Your task to perform on an android device: Set the phone to "Do not disturb". Image 0: 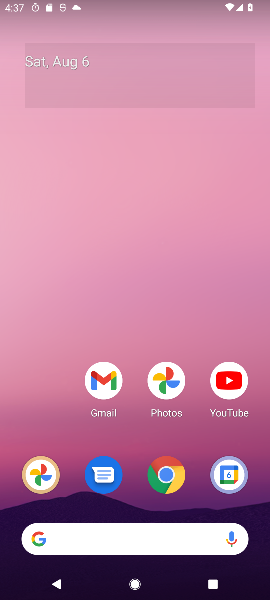
Step 0: drag from (44, 576) to (148, 41)
Your task to perform on an android device: Set the phone to "Do not disturb". Image 1: 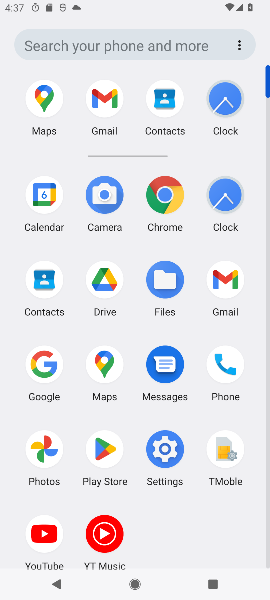
Step 1: click (172, 459)
Your task to perform on an android device: Set the phone to "Do not disturb". Image 2: 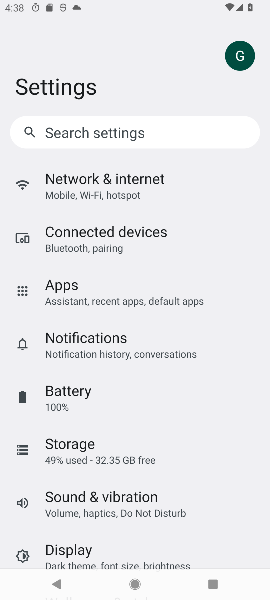
Step 2: click (144, 505)
Your task to perform on an android device: Set the phone to "Do not disturb". Image 3: 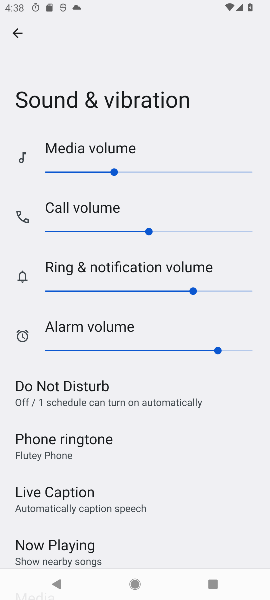
Step 3: drag from (230, 503) to (161, 231)
Your task to perform on an android device: Set the phone to "Do not disturb". Image 4: 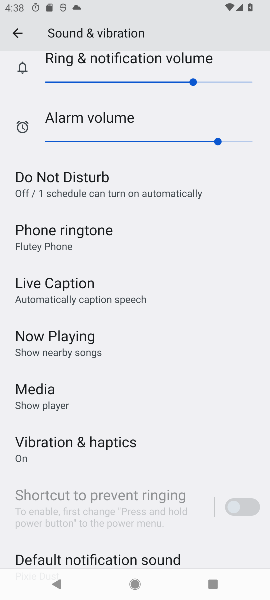
Step 4: click (95, 190)
Your task to perform on an android device: Set the phone to "Do not disturb". Image 5: 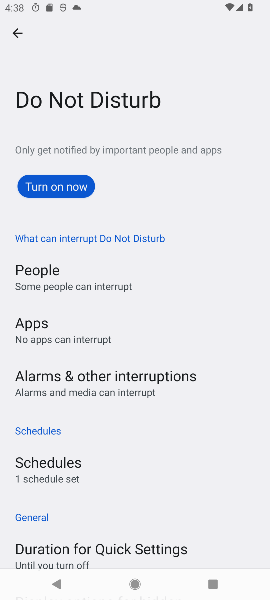
Step 5: click (62, 189)
Your task to perform on an android device: Set the phone to "Do not disturb". Image 6: 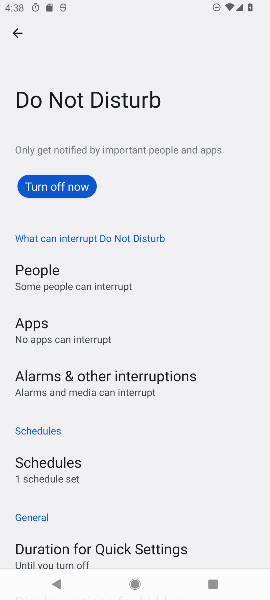
Step 6: task complete